Your task to perform on an android device: What is the recent news? Image 0: 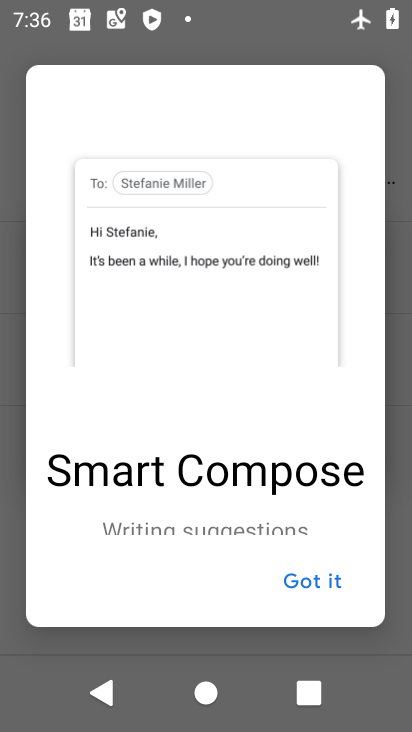
Step 0: press home button
Your task to perform on an android device: What is the recent news? Image 1: 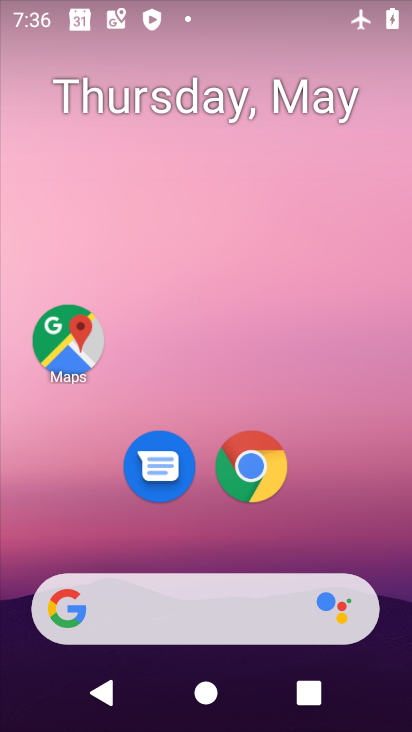
Step 1: task complete